Your task to perform on an android device: add a label to a message in the gmail app Image 0: 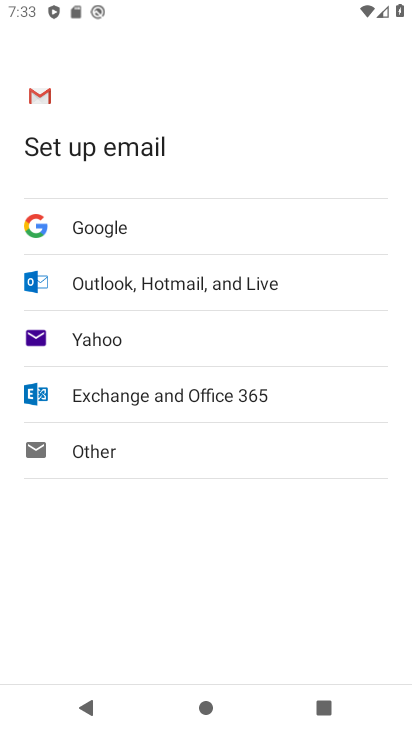
Step 0: press home button
Your task to perform on an android device: add a label to a message in the gmail app Image 1: 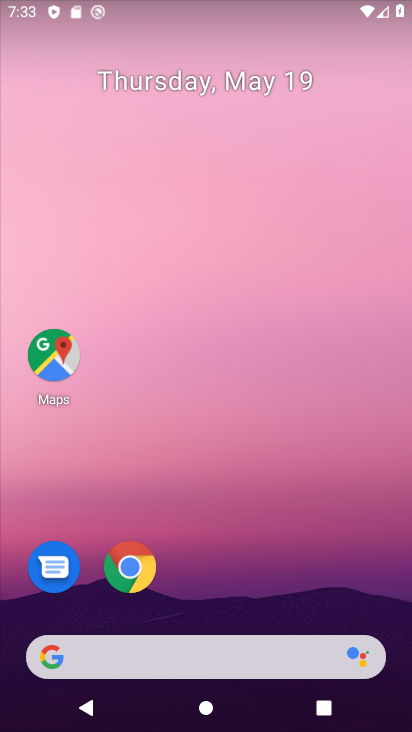
Step 1: drag from (215, 606) to (316, 193)
Your task to perform on an android device: add a label to a message in the gmail app Image 2: 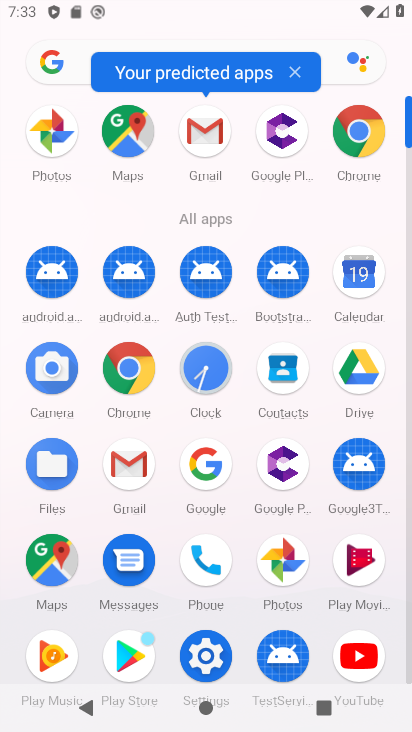
Step 2: click (202, 127)
Your task to perform on an android device: add a label to a message in the gmail app Image 3: 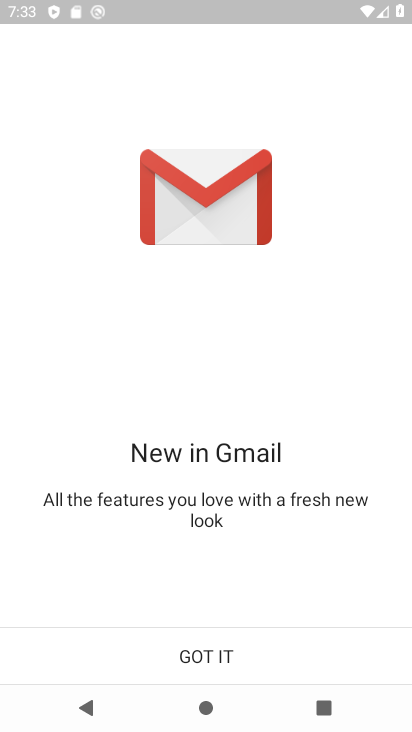
Step 3: click (211, 666)
Your task to perform on an android device: add a label to a message in the gmail app Image 4: 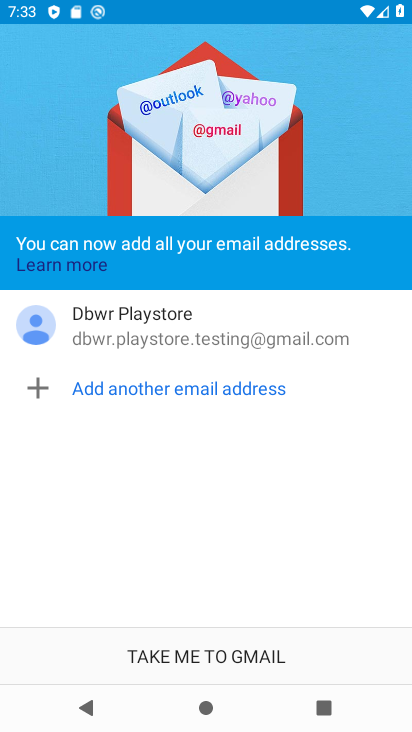
Step 4: click (211, 666)
Your task to perform on an android device: add a label to a message in the gmail app Image 5: 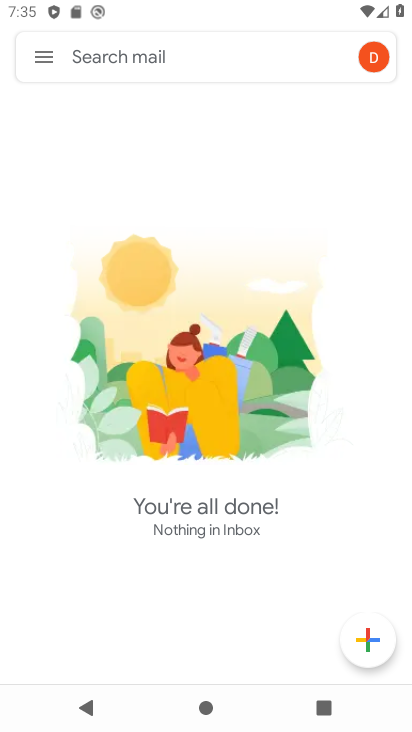
Step 5: task complete